Your task to perform on an android device: read, delete, or share a saved page in the chrome app Image 0: 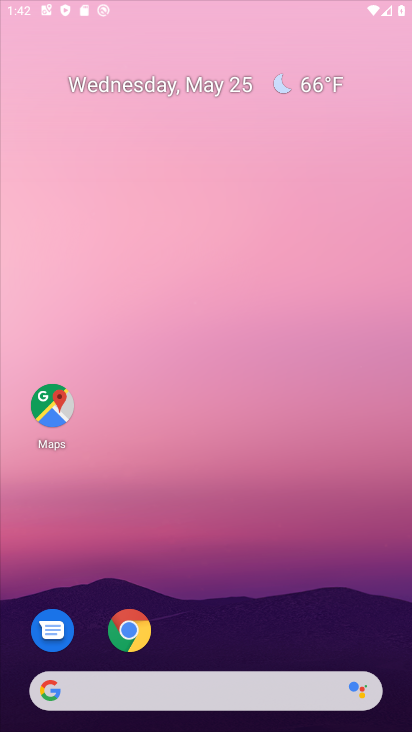
Step 0: press home button
Your task to perform on an android device: read, delete, or share a saved page in the chrome app Image 1: 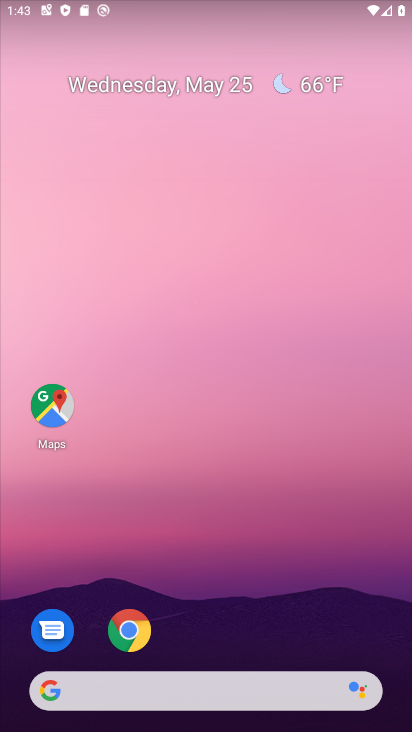
Step 1: click (125, 625)
Your task to perform on an android device: read, delete, or share a saved page in the chrome app Image 2: 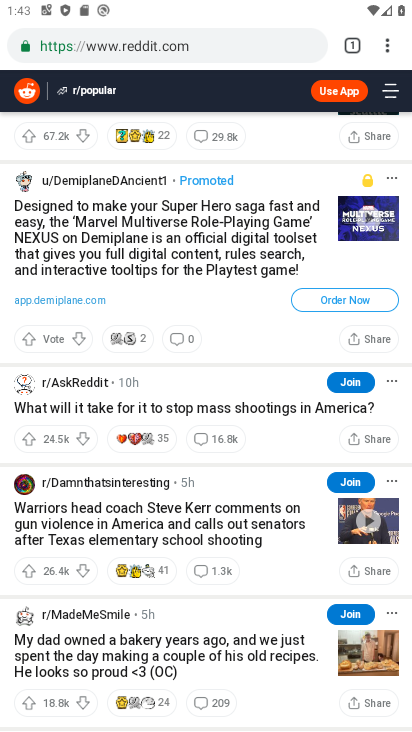
Step 2: click (383, 37)
Your task to perform on an android device: read, delete, or share a saved page in the chrome app Image 3: 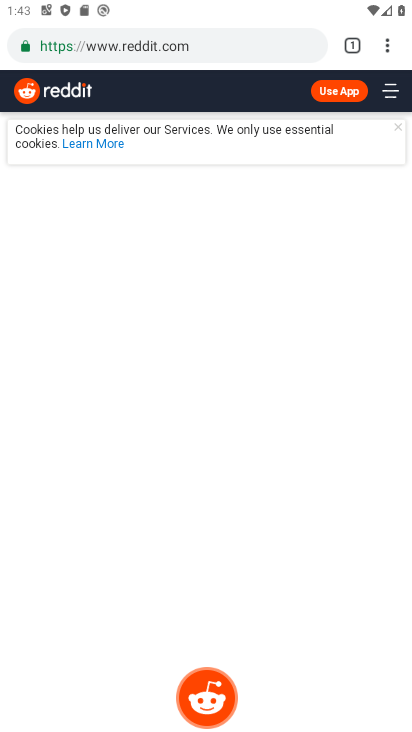
Step 3: click (388, 39)
Your task to perform on an android device: read, delete, or share a saved page in the chrome app Image 4: 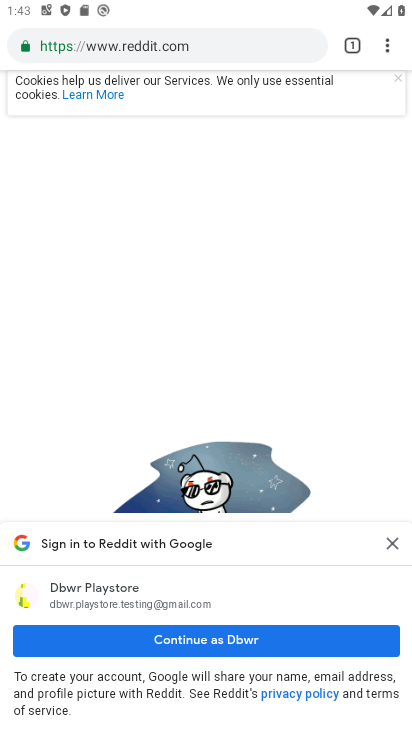
Step 4: click (211, 638)
Your task to perform on an android device: read, delete, or share a saved page in the chrome app Image 5: 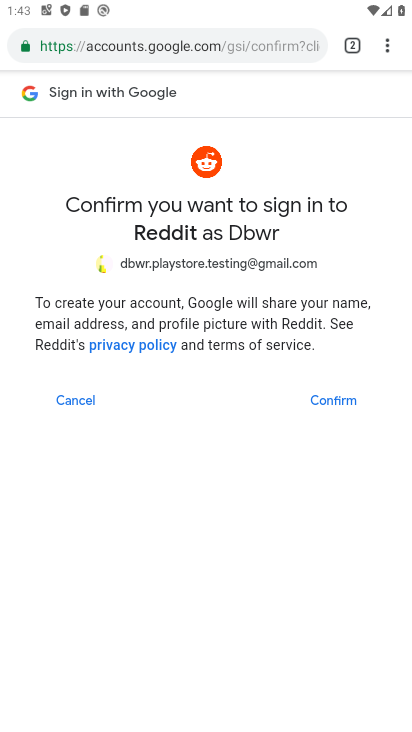
Step 5: click (335, 401)
Your task to perform on an android device: read, delete, or share a saved page in the chrome app Image 6: 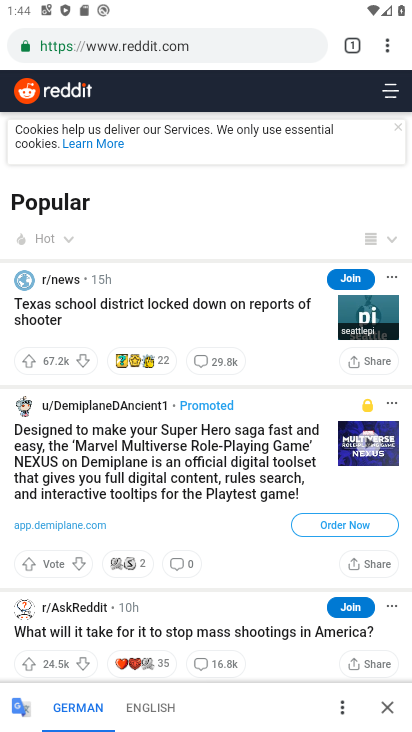
Step 6: click (389, 44)
Your task to perform on an android device: read, delete, or share a saved page in the chrome app Image 7: 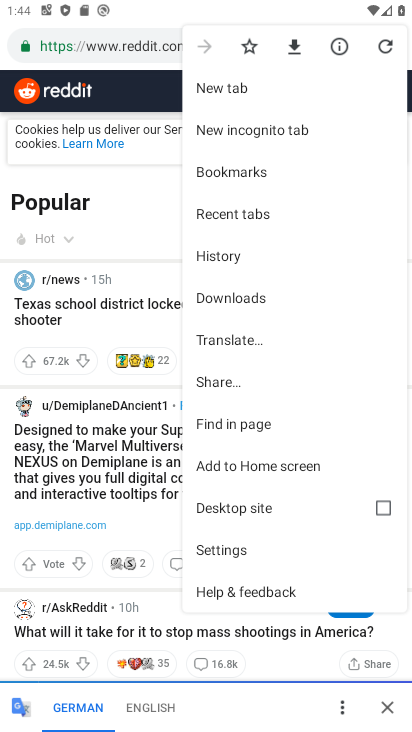
Step 7: click (273, 293)
Your task to perform on an android device: read, delete, or share a saved page in the chrome app Image 8: 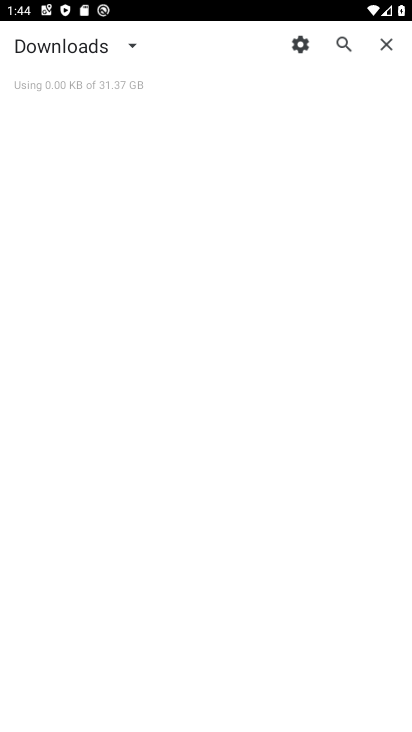
Step 8: task complete